Your task to perform on an android device: change notification settings in the gmail app Image 0: 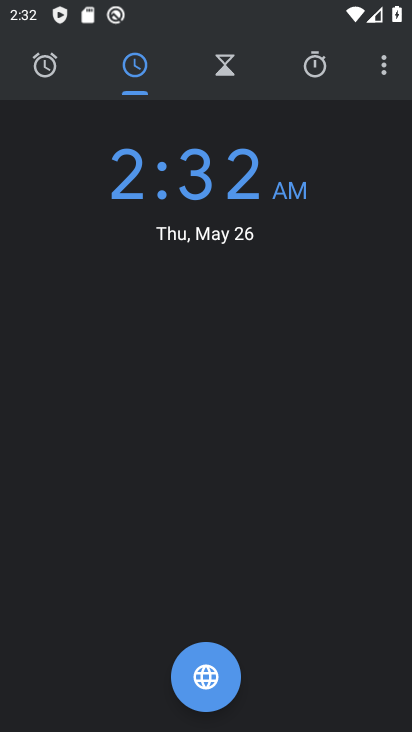
Step 0: press home button
Your task to perform on an android device: change notification settings in the gmail app Image 1: 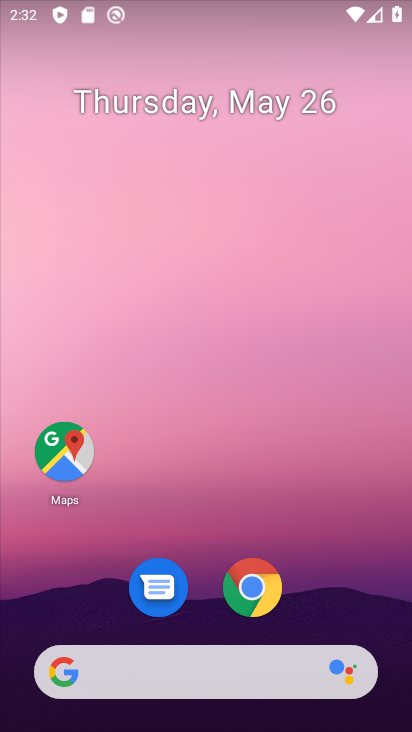
Step 1: drag from (210, 462) to (260, 179)
Your task to perform on an android device: change notification settings in the gmail app Image 2: 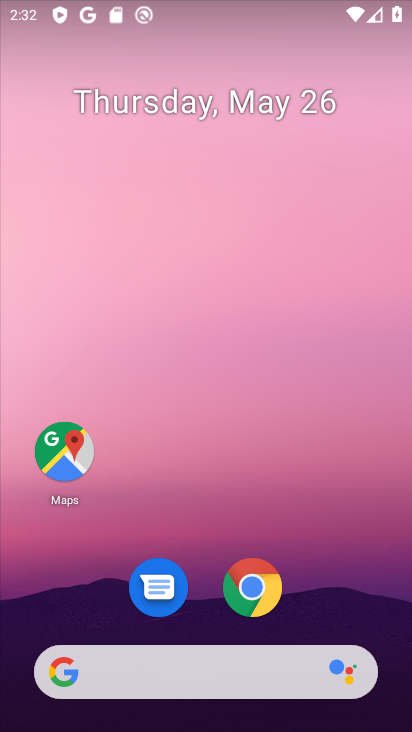
Step 2: drag from (206, 629) to (308, 115)
Your task to perform on an android device: change notification settings in the gmail app Image 3: 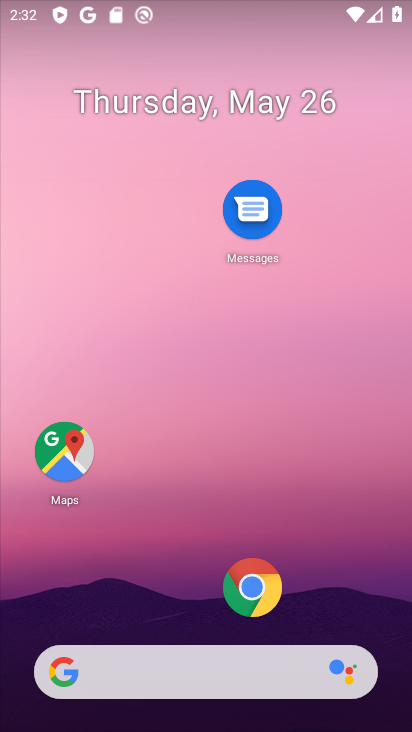
Step 3: drag from (141, 603) to (221, 129)
Your task to perform on an android device: change notification settings in the gmail app Image 4: 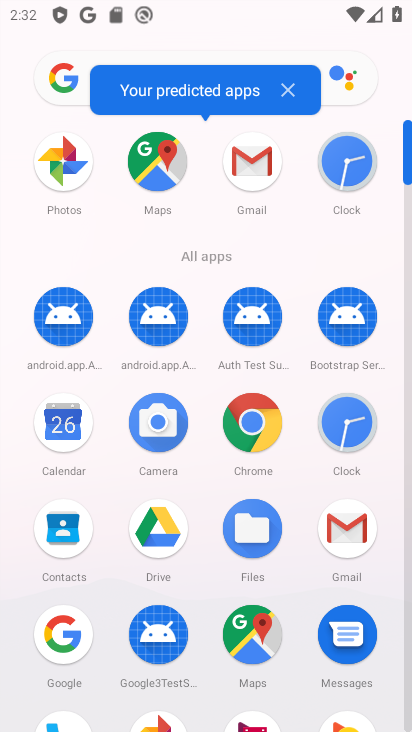
Step 4: click (353, 540)
Your task to perform on an android device: change notification settings in the gmail app Image 5: 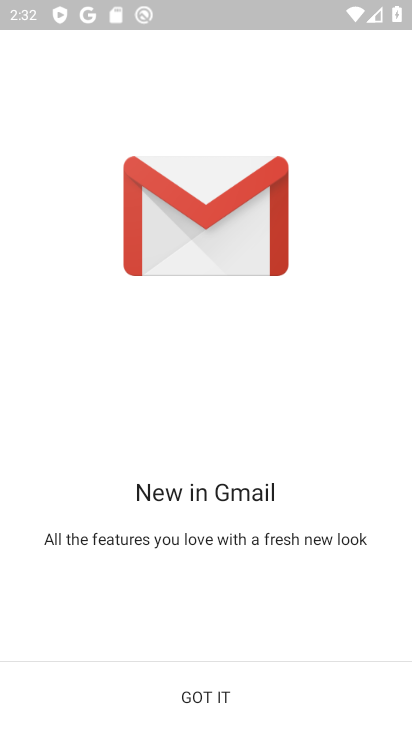
Step 5: click (217, 699)
Your task to perform on an android device: change notification settings in the gmail app Image 6: 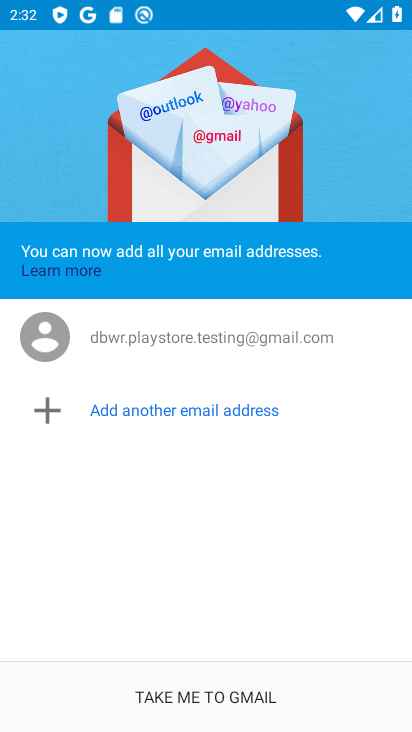
Step 6: click (226, 705)
Your task to perform on an android device: change notification settings in the gmail app Image 7: 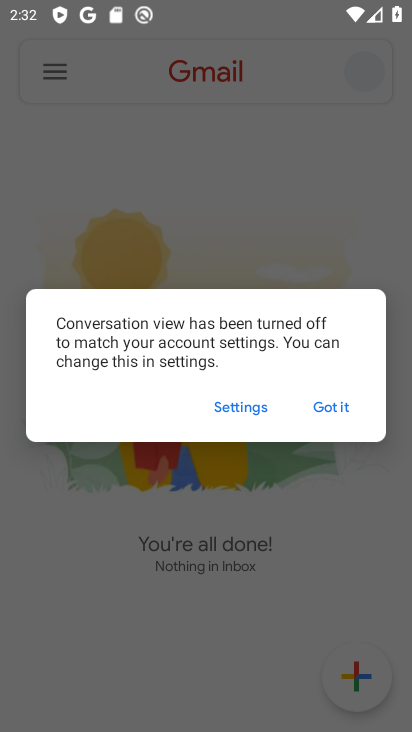
Step 7: click (347, 400)
Your task to perform on an android device: change notification settings in the gmail app Image 8: 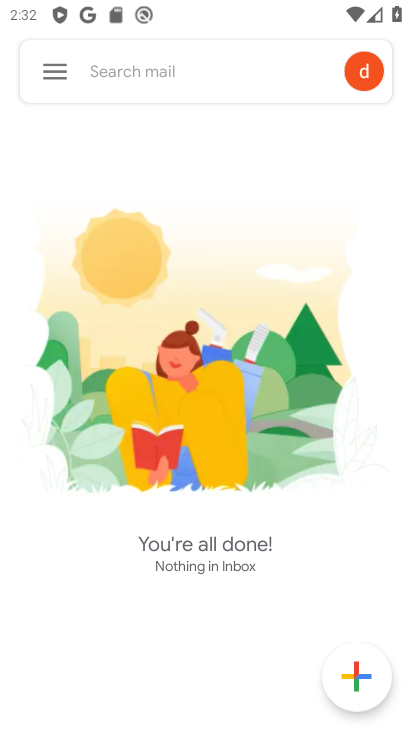
Step 8: click (61, 52)
Your task to perform on an android device: change notification settings in the gmail app Image 9: 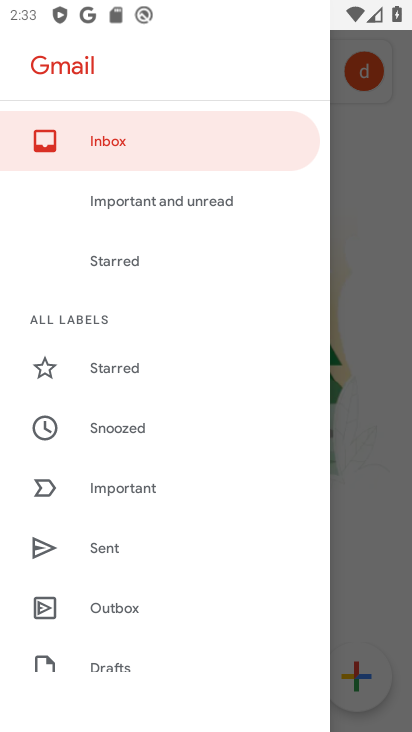
Step 9: drag from (108, 556) to (218, 91)
Your task to perform on an android device: change notification settings in the gmail app Image 10: 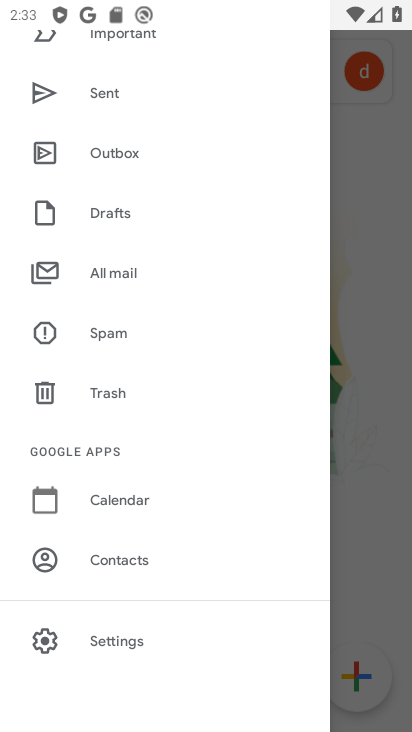
Step 10: drag from (119, 632) to (198, 256)
Your task to perform on an android device: change notification settings in the gmail app Image 11: 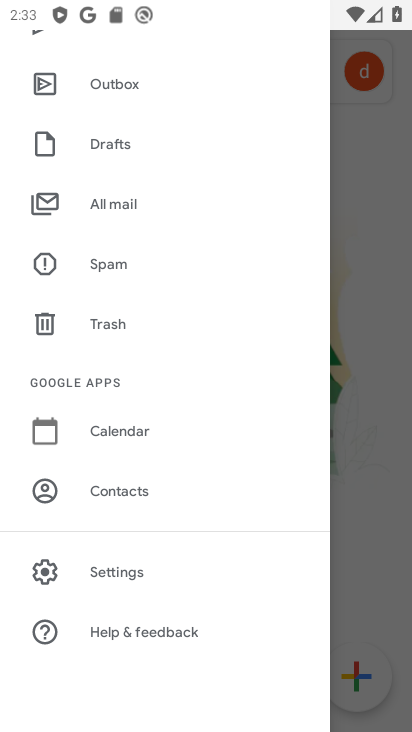
Step 11: click (110, 571)
Your task to perform on an android device: change notification settings in the gmail app Image 12: 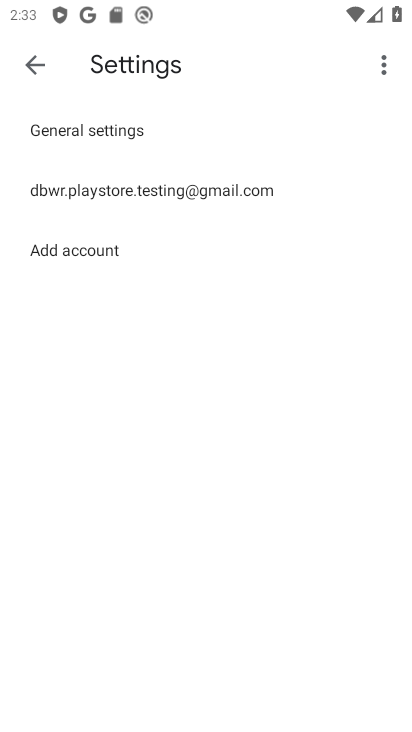
Step 12: click (113, 116)
Your task to perform on an android device: change notification settings in the gmail app Image 13: 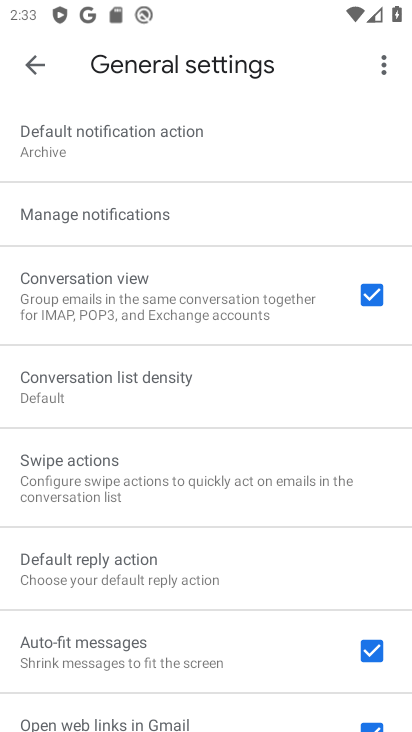
Step 13: click (121, 225)
Your task to perform on an android device: change notification settings in the gmail app Image 14: 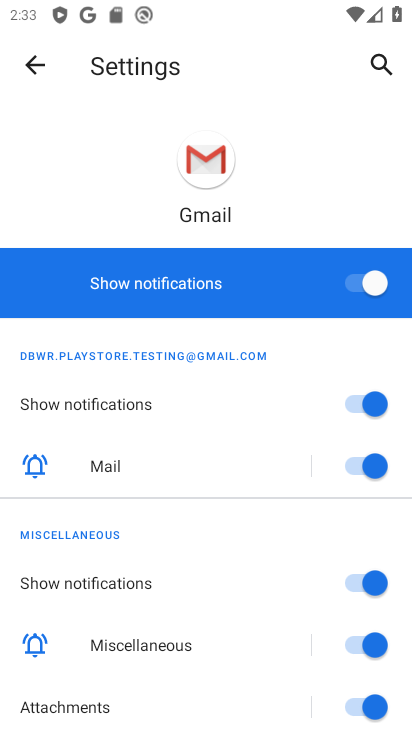
Step 14: click (329, 289)
Your task to perform on an android device: change notification settings in the gmail app Image 15: 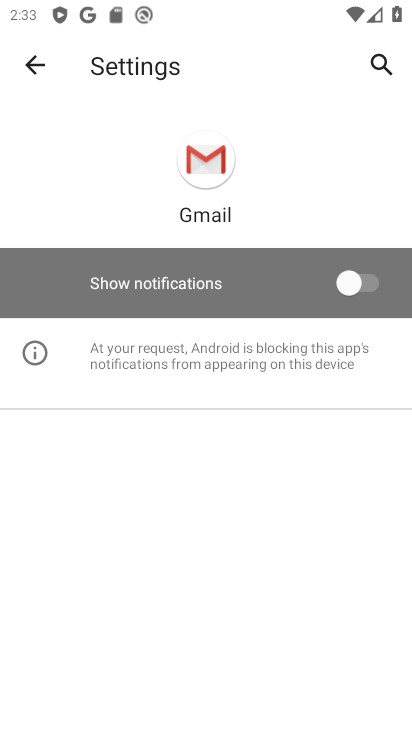
Step 15: task complete